Your task to perform on an android device: install app "Pandora - Music & Podcasts" Image 0: 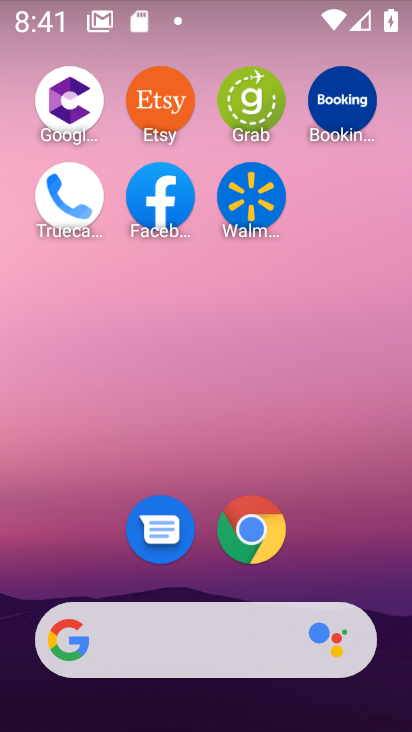
Step 0: drag from (190, 716) to (188, 114)
Your task to perform on an android device: install app "Pandora - Music & Podcasts" Image 1: 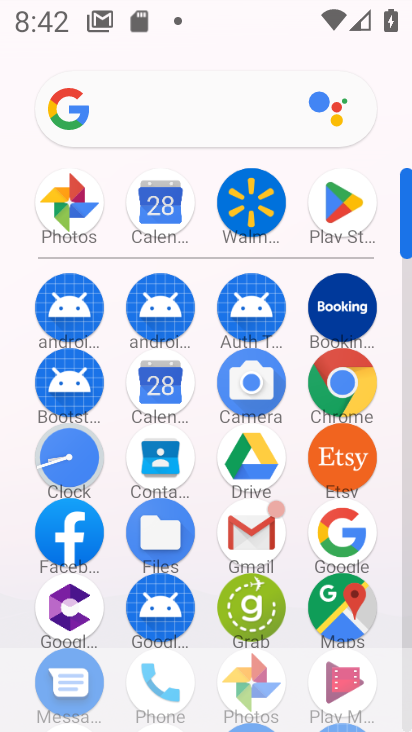
Step 1: click (340, 190)
Your task to perform on an android device: install app "Pandora - Music & Podcasts" Image 2: 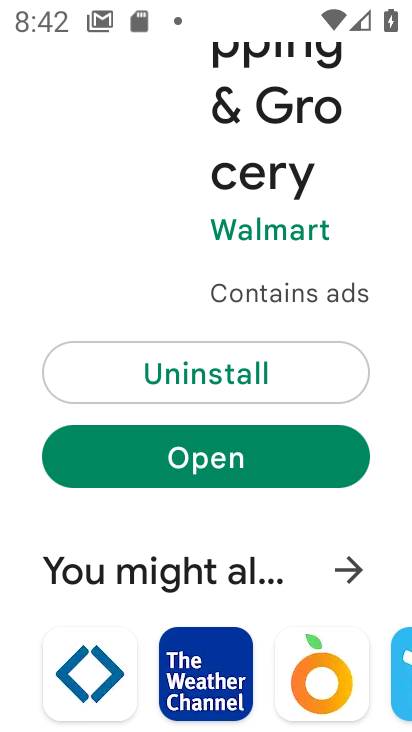
Step 2: drag from (170, 171) to (189, 605)
Your task to perform on an android device: install app "Pandora - Music & Podcasts" Image 3: 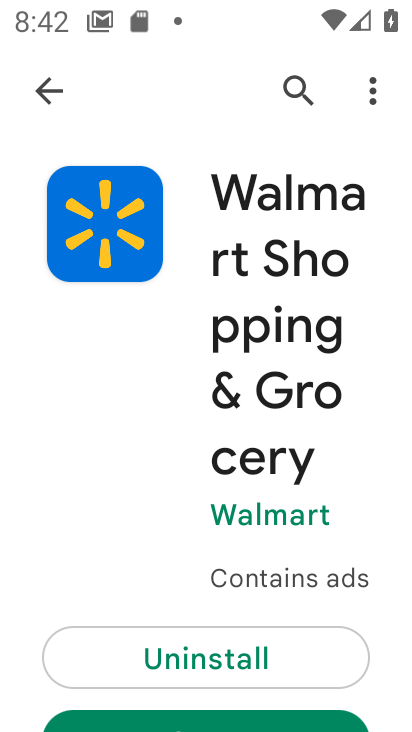
Step 3: click (294, 80)
Your task to perform on an android device: install app "Pandora - Music & Podcasts" Image 4: 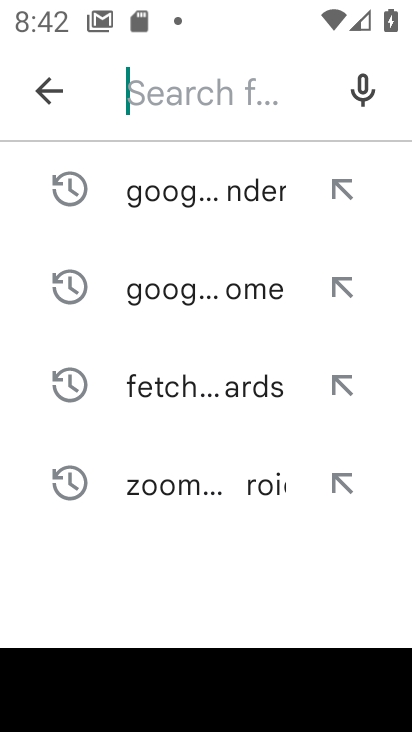
Step 4: type "Pandora - music & Podcasts"
Your task to perform on an android device: install app "Pandora - Music & Podcasts" Image 5: 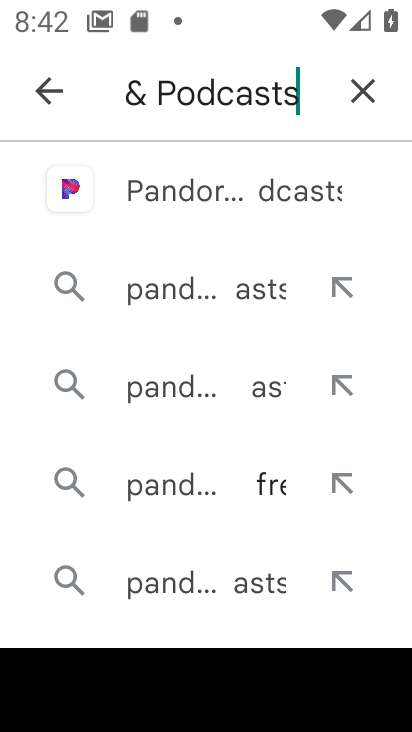
Step 5: click (206, 189)
Your task to perform on an android device: install app "Pandora - Music & Podcasts" Image 6: 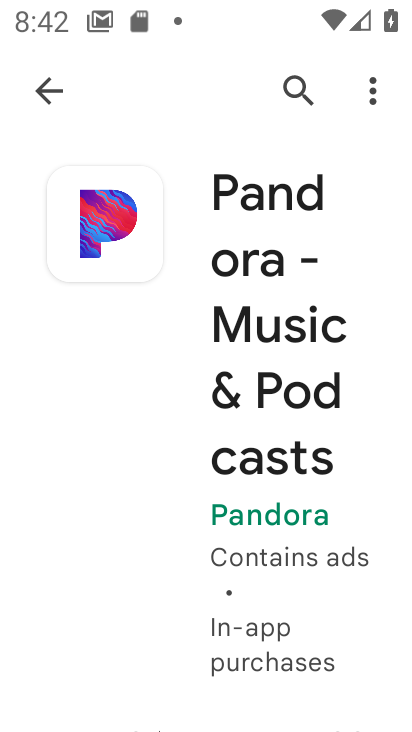
Step 6: drag from (170, 677) to (212, 331)
Your task to perform on an android device: install app "Pandora - Music & Podcasts" Image 7: 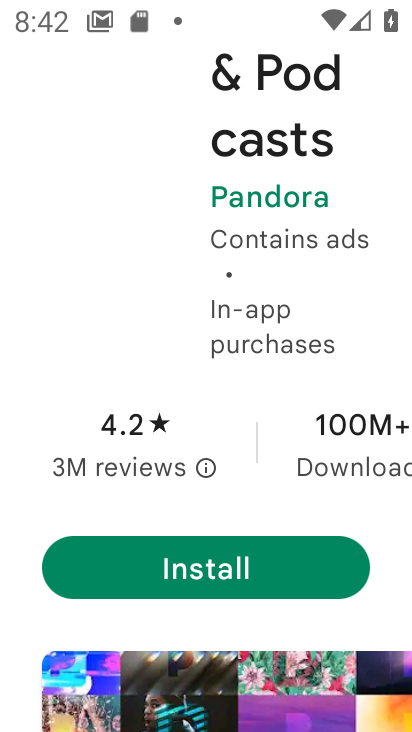
Step 7: click (223, 557)
Your task to perform on an android device: install app "Pandora - Music & Podcasts" Image 8: 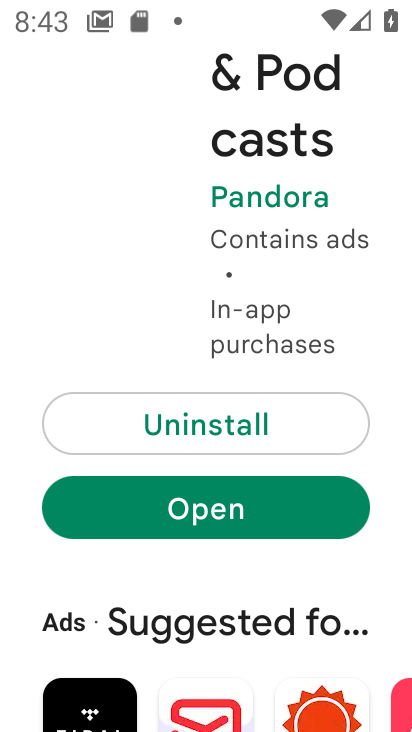
Step 8: task complete